Your task to perform on an android device: Go to battery settings Image 0: 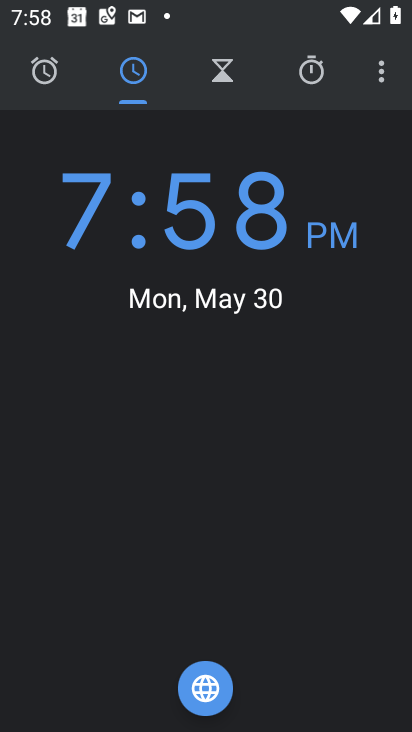
Step 0: press home button
Your task to perform on an android device: Go to battery settings Image 1: 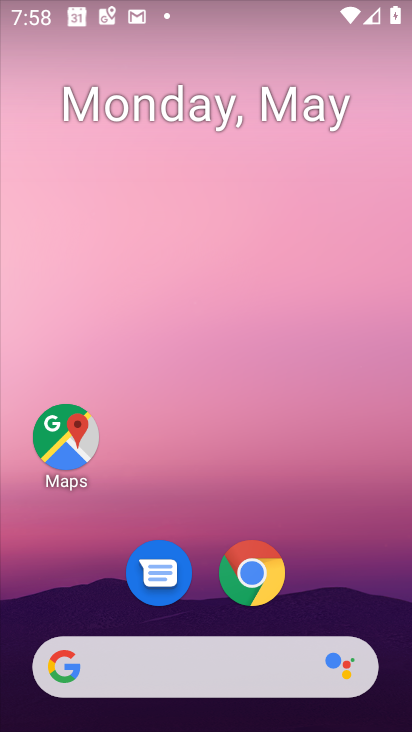
Step 1: drag from (174, 658) to (154, 158)
Your task to perform on an android device: Go to battery settings Image 2: 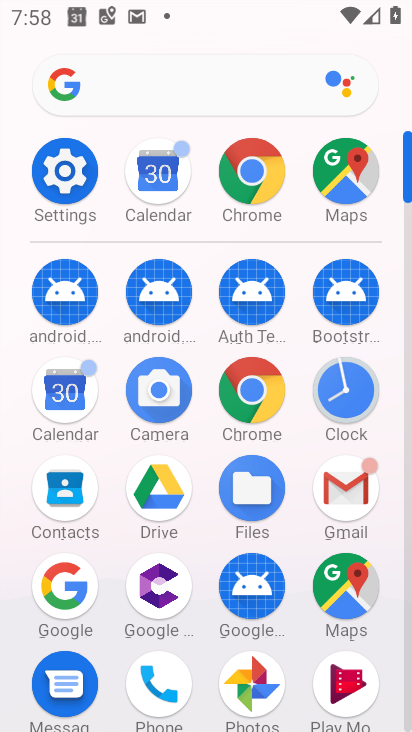
Step 2: click (57, 195)
Your task to perform on an android device: Go to battery settings Image 3: 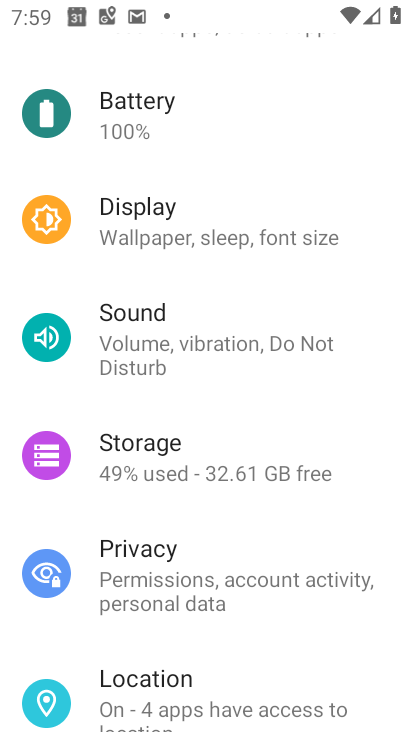
Step 3: click (172, 124)
Your task to perform on an android device: Go to battery settings Image 4: 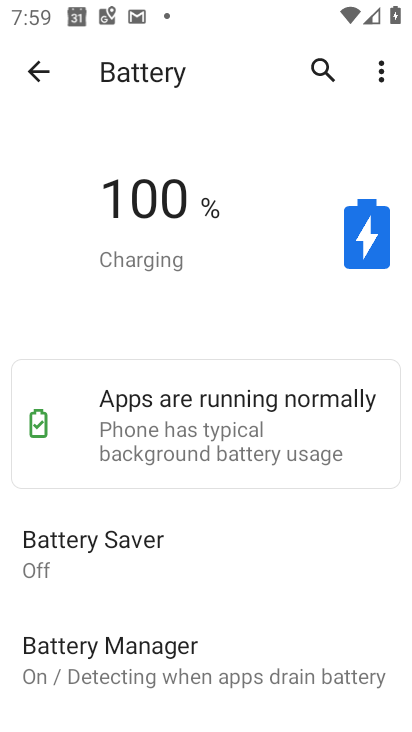
Step 4: task complete